Your task to perform on an android device: Open privacy settings Image 0: 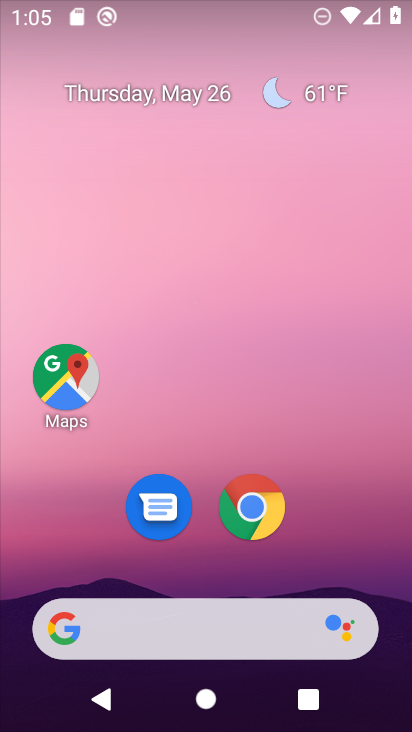
Step 0: drag from (343, 506) to (292, 1)
Your task to perform on an android device: Open privacy settings Image 1: 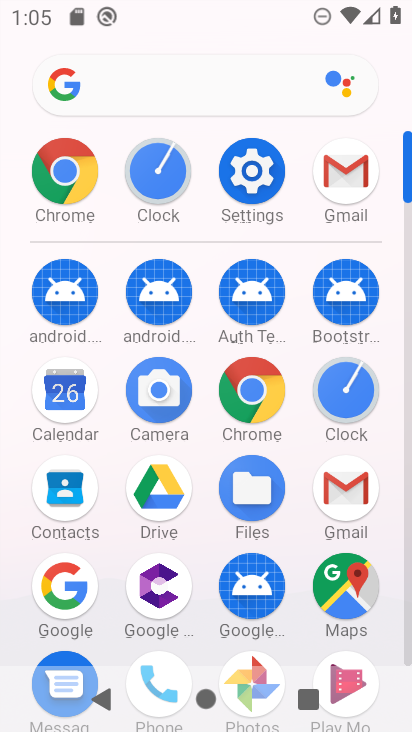
Step 1: click (253, 195)
Your task to perform on an android device: Open privacy settings Image 2: 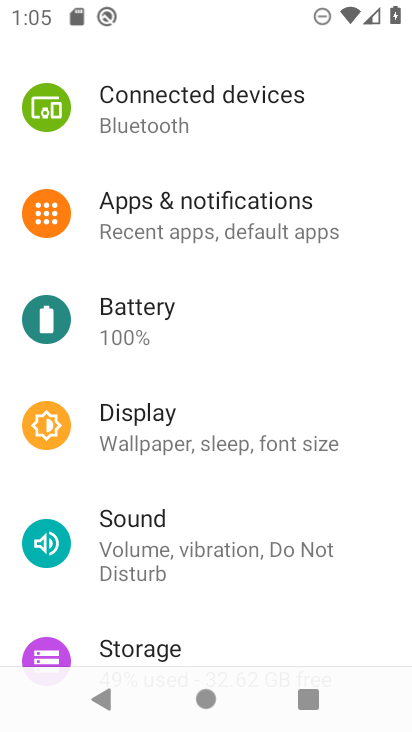
Step 2: drag from (279, 565) to (239, 247)
Your task to perform on an android device: Open privacy settings Image 3: 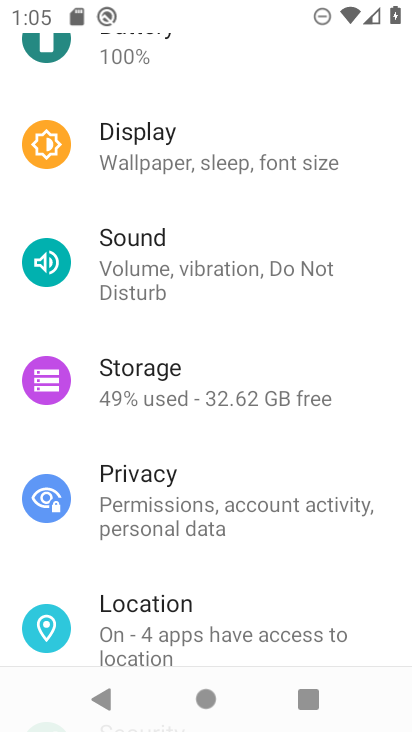
Step 3: click (225, 475)
Your task to perform on an android device: Open privacy settings Image 4: 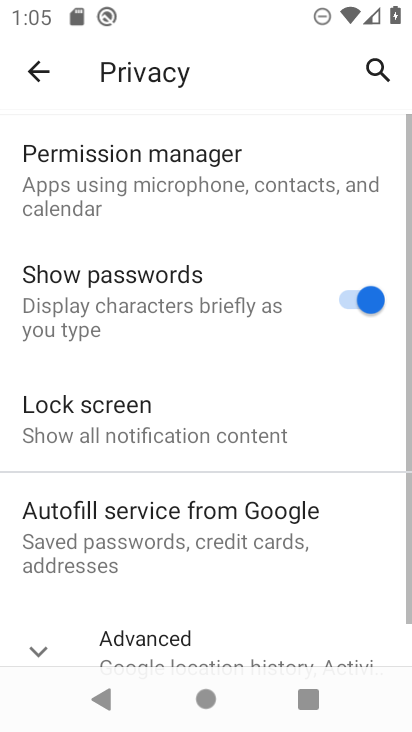
Step 4: task complete